Your task to perform on an android device: add a contact Image 0: 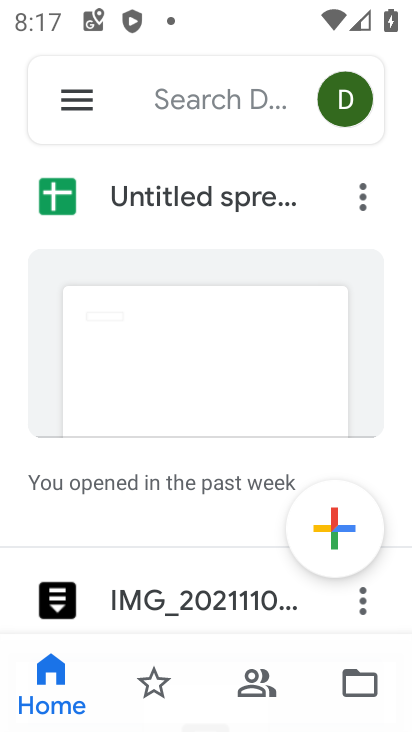
Step 0: press home button
Your task to perform on an android device: add a contact Image 1: 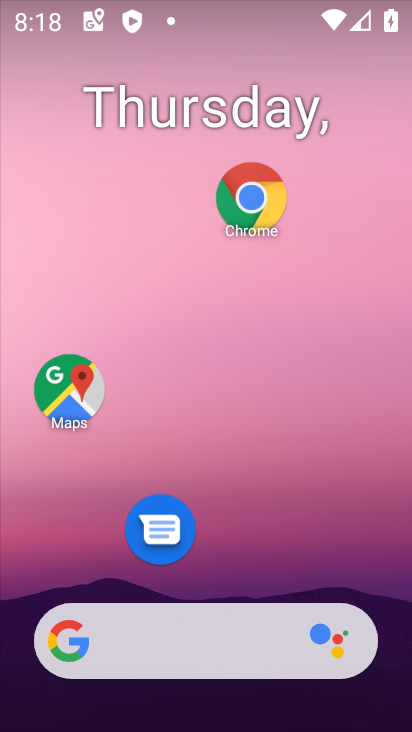
Step 1: drag from (166, 580) to (263, 110)
Your task to perform on an android device: add a contact Image 2: 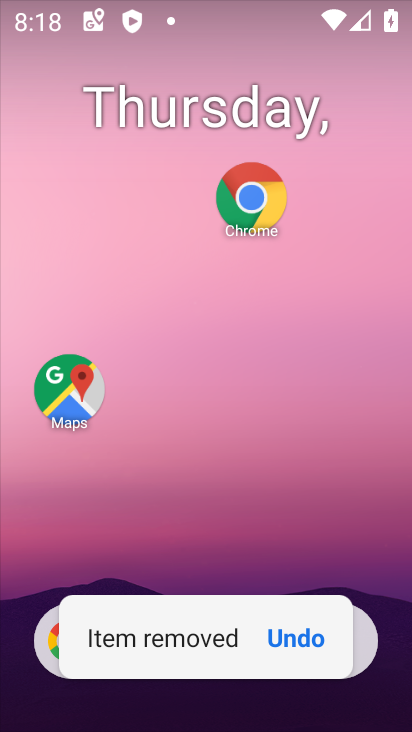
Step 2: click (285, 650)
Your task to perform on an android device: add a contact Image 3: 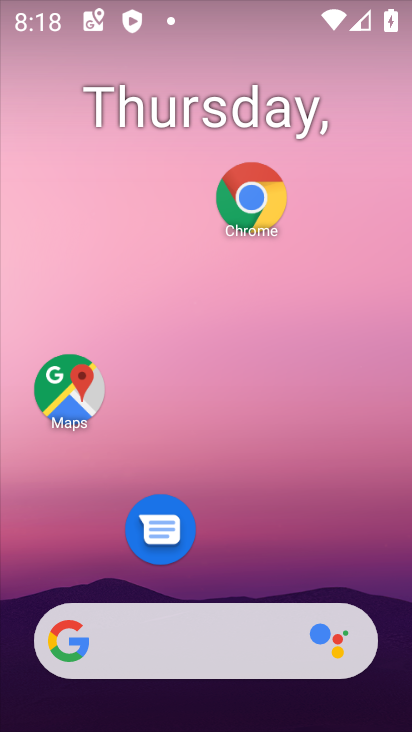
Step 3: drag from (256, 571) to (295, 54)
Your task to perform on an android device: add a contact Image 4: 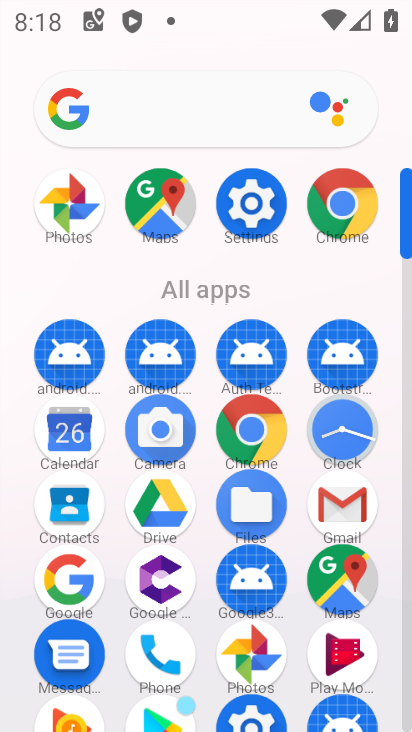
Step 4: click (330, 339)
Your task to perform on an android device: add a contact Image 5: 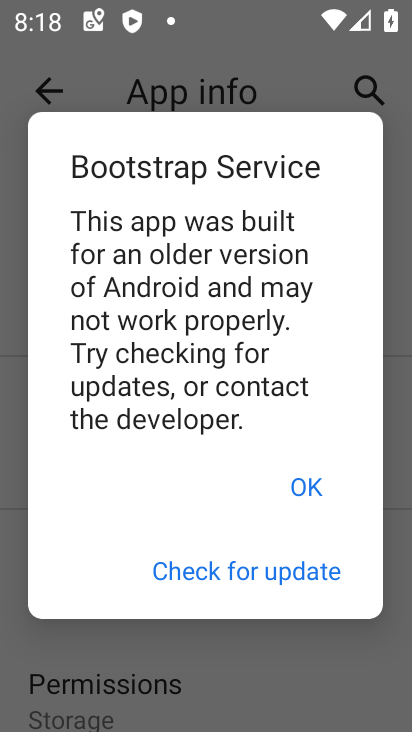
Step 5: press back button
Your task to perform on an android device: add a contact Image 6: 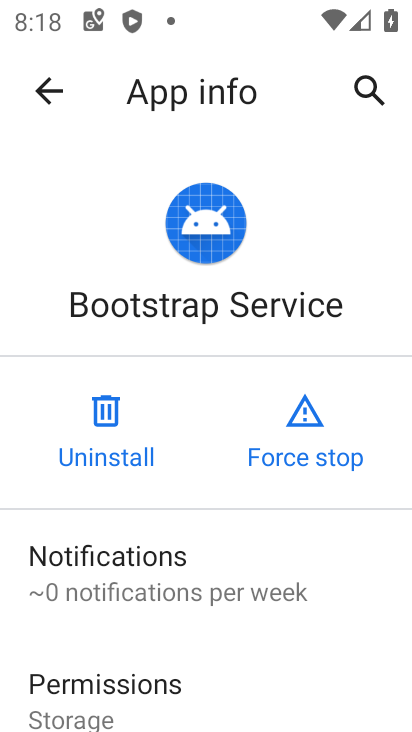
Step 6: click (36, 90)
Your task to perform on an android device: add a contact Image 7: 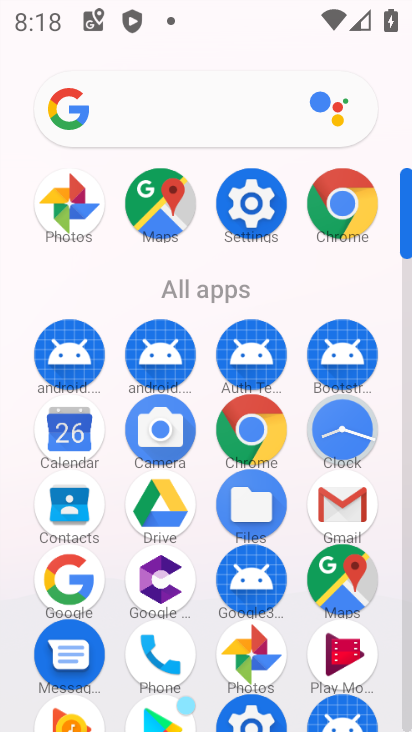
Step 7: drag from (193, 673) to (281, 277)
Your task to perform on an android device: add a contact Image 8: 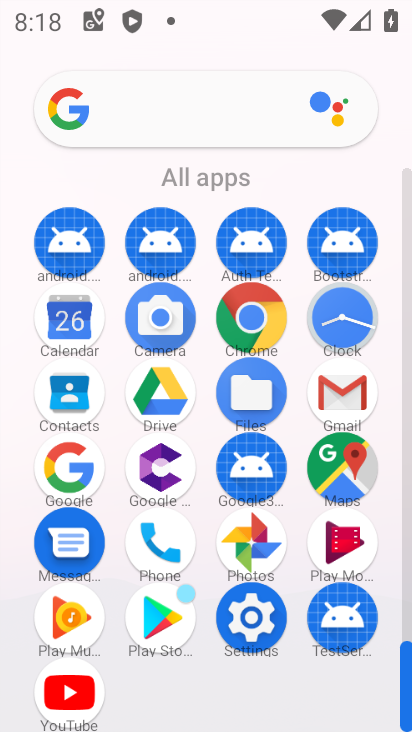
Step 8: click (70, 406)
Your task to perform on an android device: add a contact Image 9: 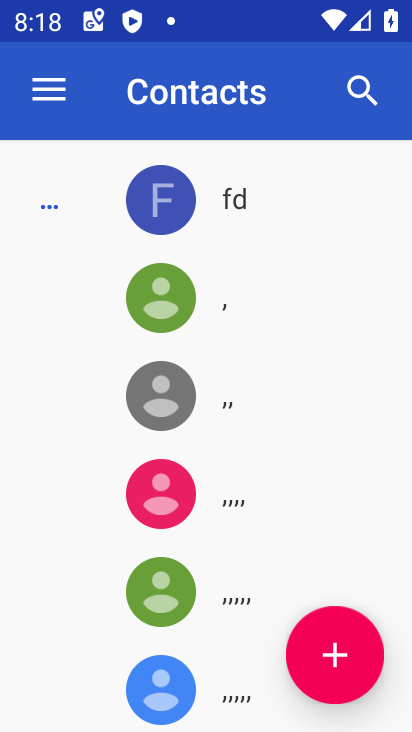
Step 9: click (335, 668)
Your task to perform on an android device: add a contact Image 10: 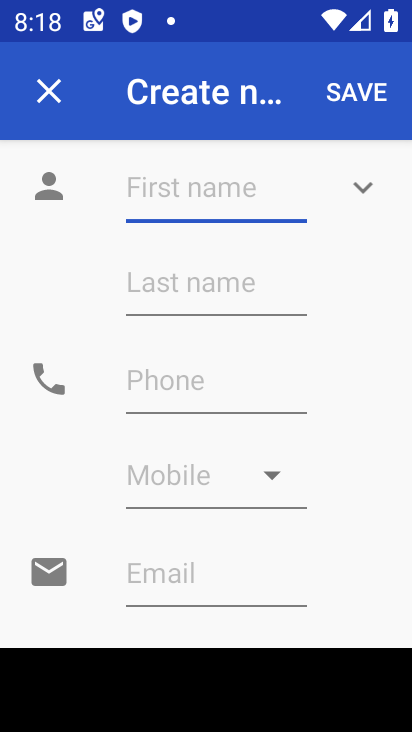
Step 10: type "Nirankari"
Your task to perform on an android device: add a contact Image 11: 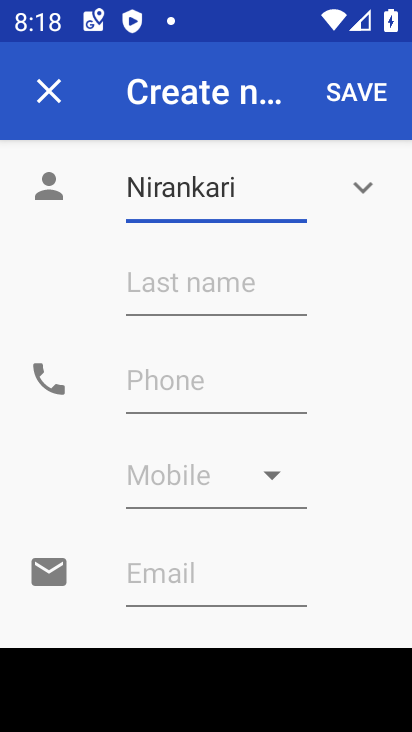
Step 11: click (203, 294)
Your task to perform on an android device: add a contact Image 12: 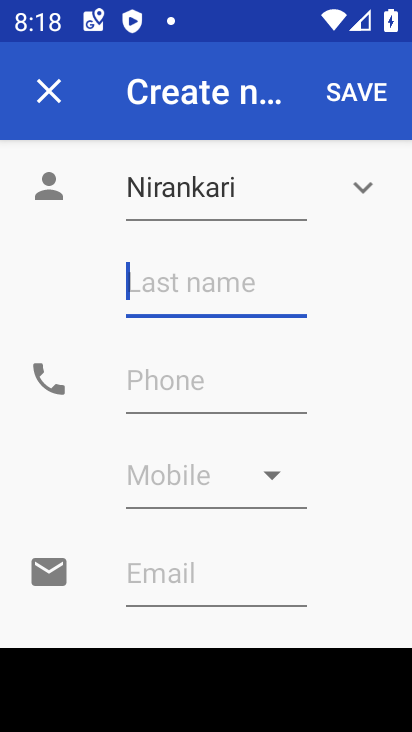
Step 12: type "Baba"
Your task to perform on an android device: add a contact Image 13: 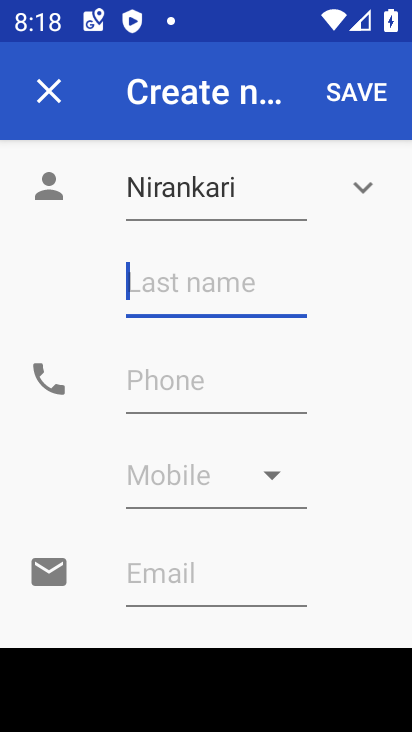
Step 13: click (273, 410)
Your task to perform on an android device: add a contact Image 14: 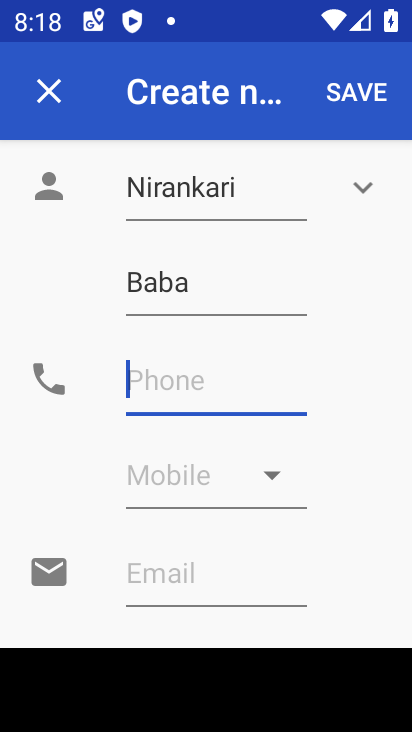
Step 14: type "6789009876"
Your task to perform on an android device: add a contact Image 15: 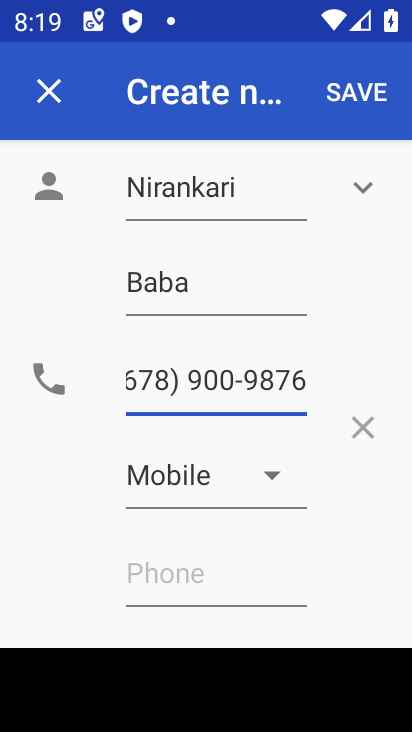
Step 15: click (361, 84)
Your task to perform on an android device: add a contact Image 16: 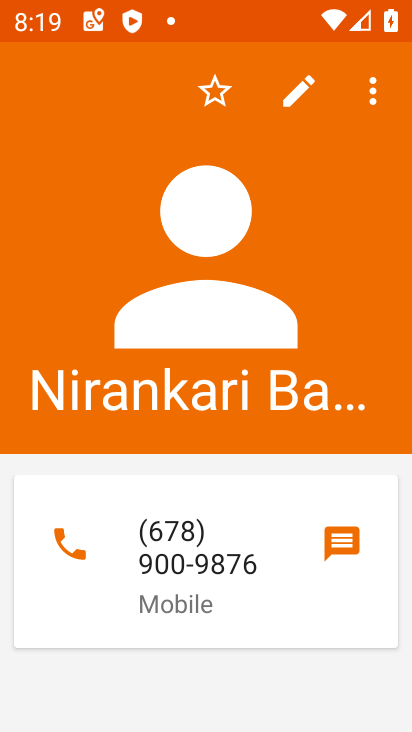
Step 16: task complete